Your task to perform on an android device: add a contact Image 0: 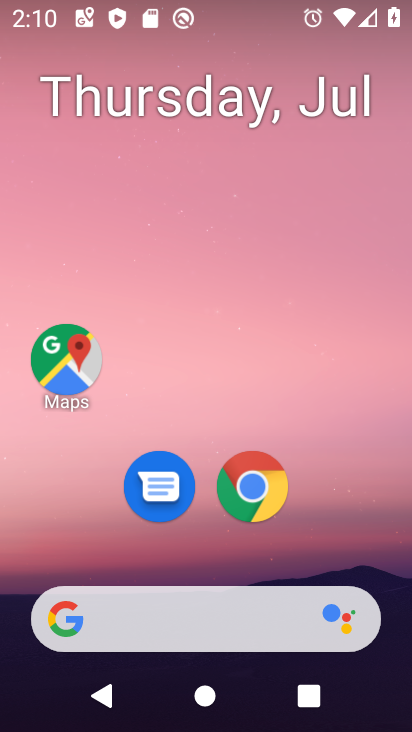
Step 0: drag from (102, 526) to (191, 1)
Your task to perform on an android device: add a contact Image 1: 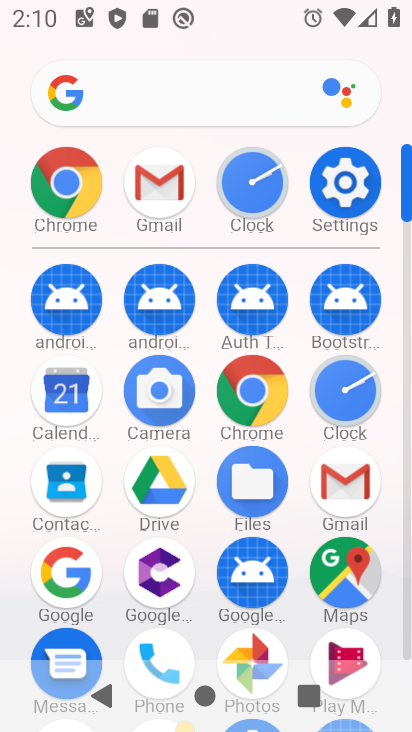
Step 1: click (61, 479)
Your task to perform on an android device: add a contact Image 2: 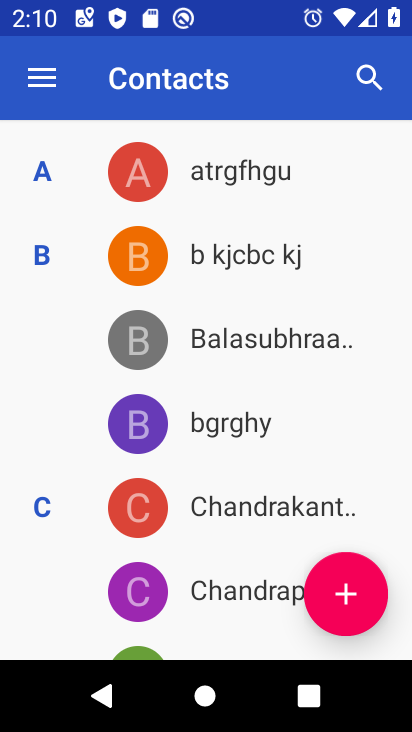
Step 2: click (333, 598)
Your task to perform on an android device: add a contact Image 3: 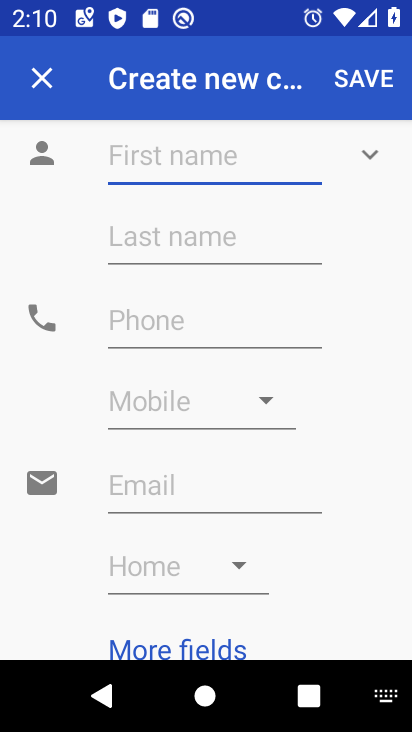
Step 3: click (151, 152)
Your task to perform on an android device: add a contact Image 4: 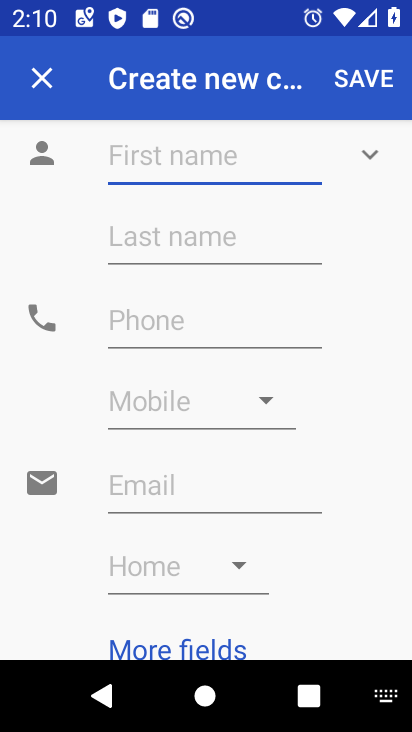
Step 4: type "vvvhv"
Your task to perform on an android device: add a contact Image 5: 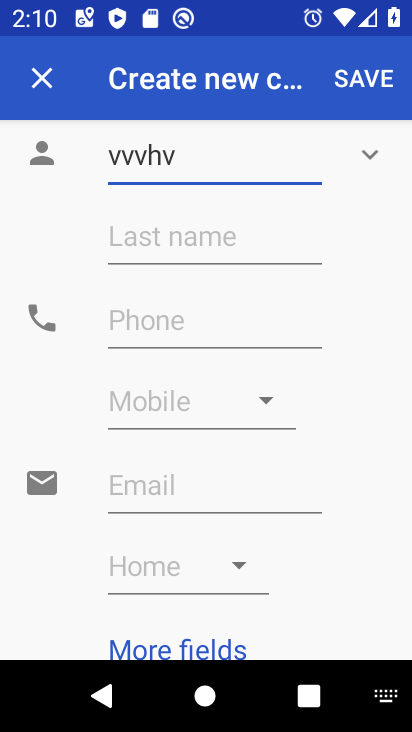
Step 5: click (200, 331)
Your task to perform on an android device: add a contact Image 6: 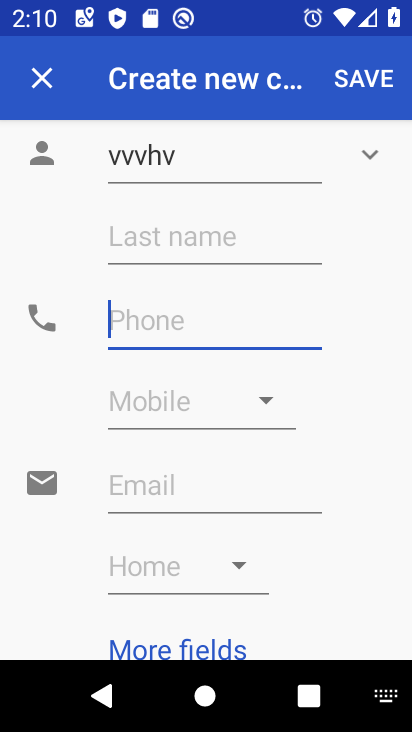
Step 6: type "787878"
Your task to perform on an android device: add a contact Image 7: 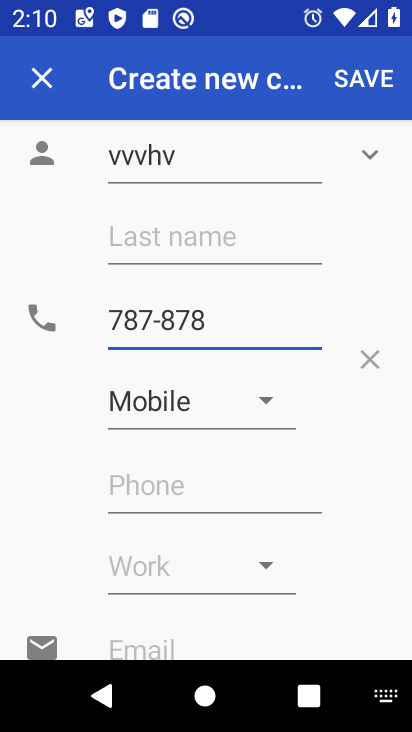
Step 7: click (359, 76)
Your task to perform on an android device: add a contact Image 8: 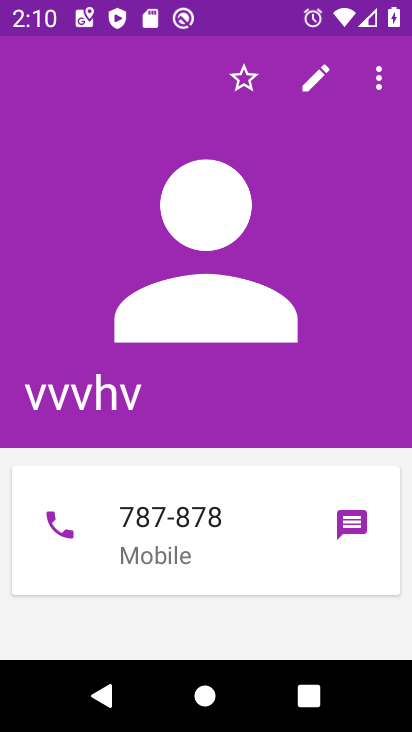
Step 8: task complete